Your task to perform on an android device: change notification settings in the gmail app Image 0: 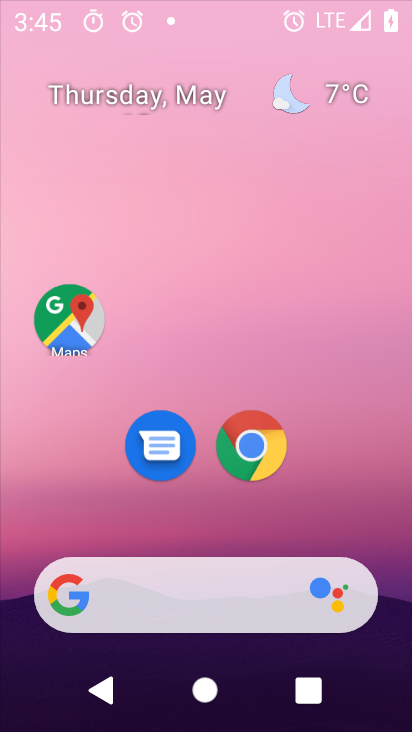
Step 0: click (409, 5)
Your task to perform on an android device: change notification settings in the gmail app Image 1: 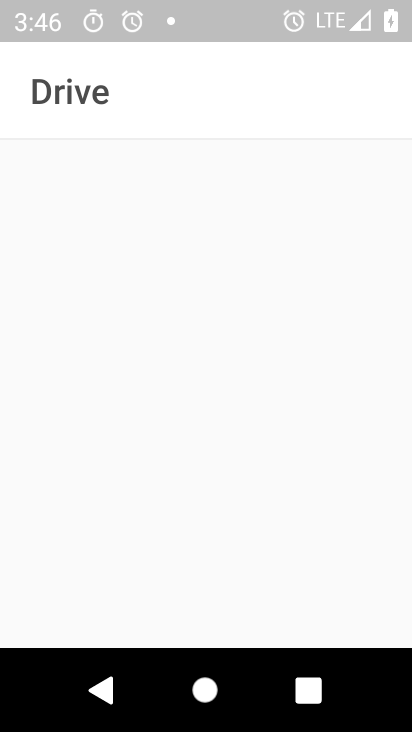
Step 1: press home button
Your task to perform on an android device: change notification settings in the gmail app Image 2: 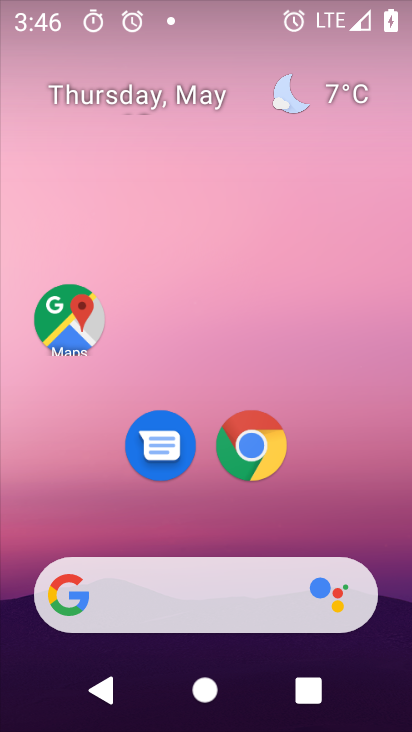
Step 2: drag from (361, 546) to (389, 3)
Your task to perform on an android device: change notification settings in the gmail app Image 3: 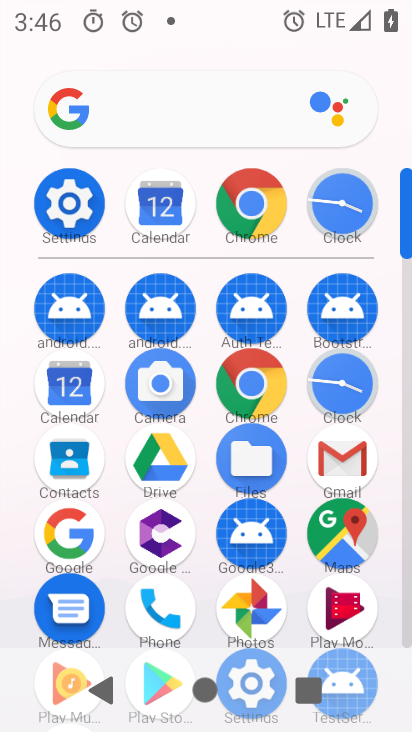
Step 3: click (340, 459)
Your task to perform on an android device: change notification settings in the gmail app Image 4: 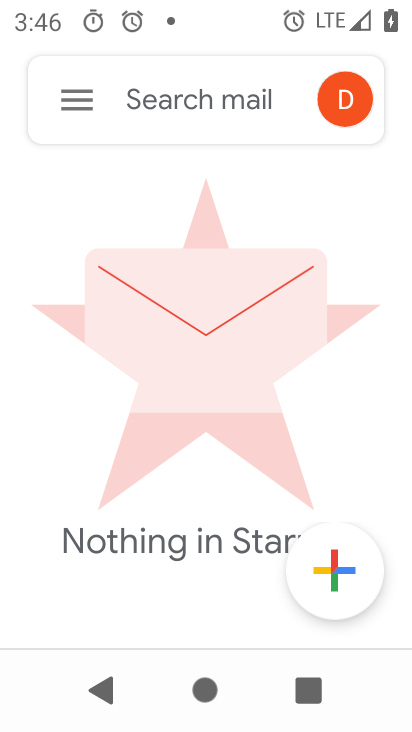
Step 4: click (69, 103)
Your task to perform on an android device: change notification settings in the gmail app Image 5: 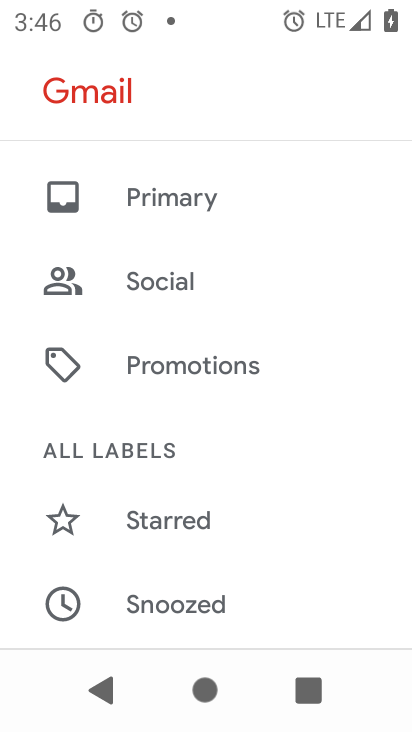
Step 5: drag from (284, 570) to (292, 200)
Your task to perform on an android device: change notification settings in the gmail app Image 6: 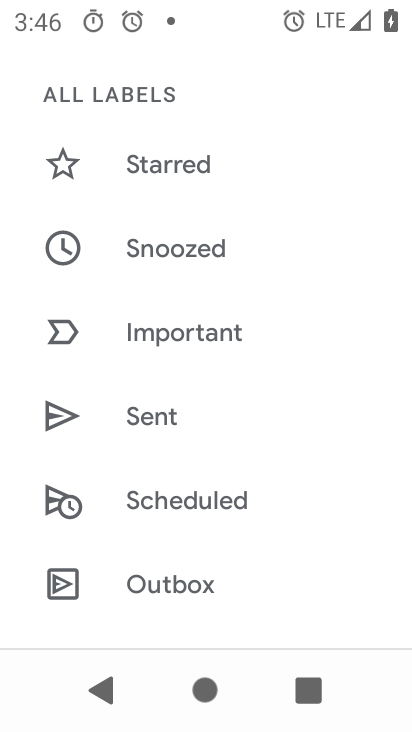
Step 6: drag from (303, 568) to (250, 178)
Your task to perform on an android device: change notification settings in the gmail app Image 7: 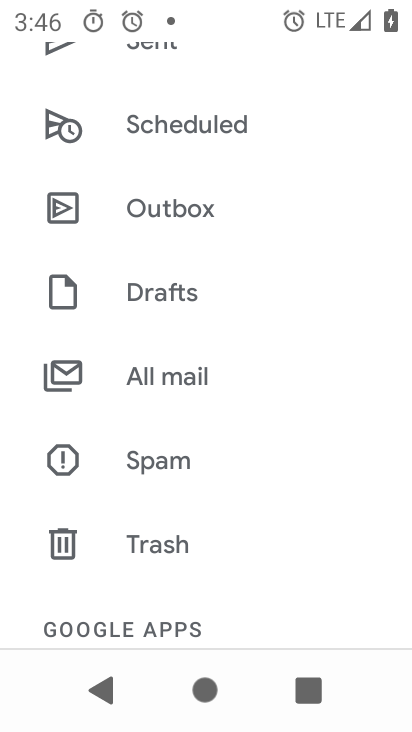
Step 7: drag from (313, 563) to (303, 171)
Your task to perform on an android device: change notification settings in the gmail app Image 8: 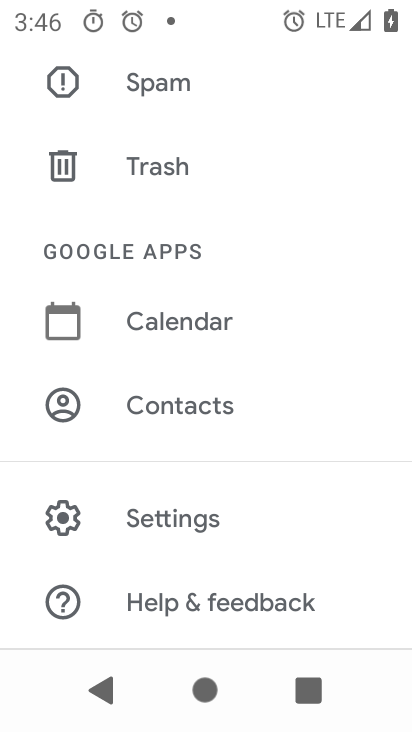
Step 8: click (169, 510)
Your task to perform on an android device: change notification settings in the gmail app Image 9: 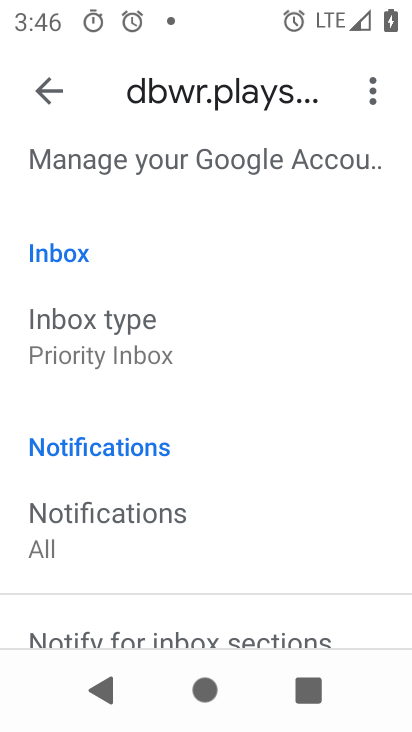
Step 9: click (46, 86)
Your task to perform on an android device: change notification settings in the gmail app Image 10: 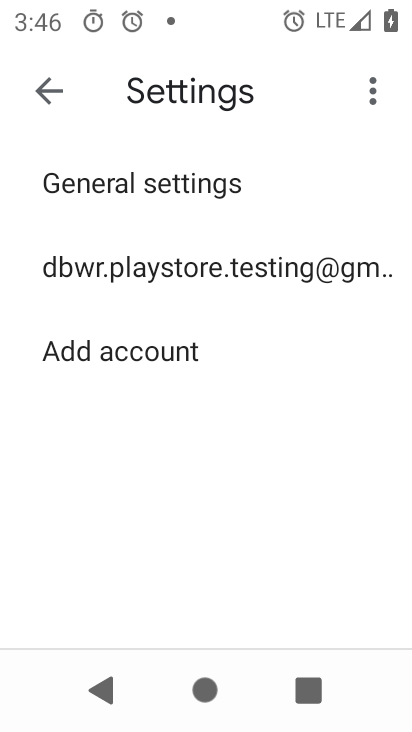
Step 10: click (131, 187)
Your task to perform on an android device: change notification settings in the gmail app Image 11: 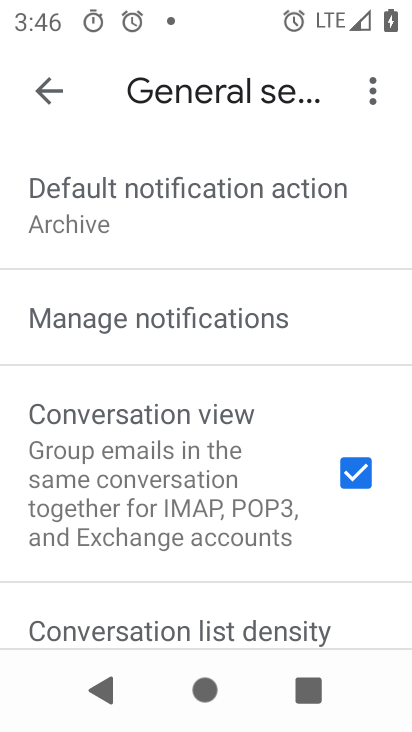
Step 11: click (123, 334)
Your task to perform on an android device: change notification settings in the gmail app Image 12: 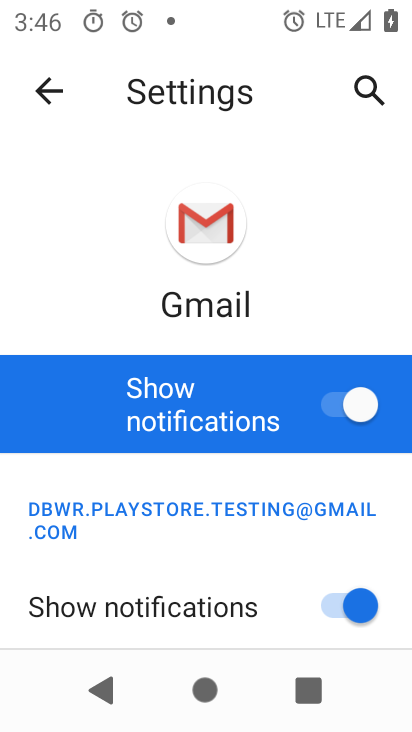
Step 12: click (357, 408)
Your task to perform on an android device: change notification settings in the gmail app Image 13: 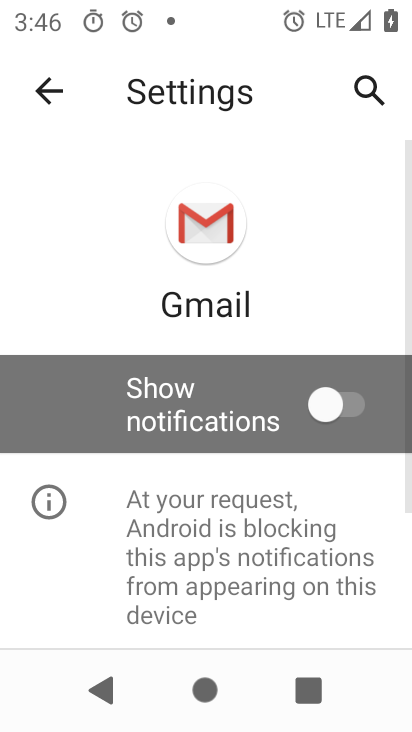
Step 13: task complete